Your task to perform on an android device: turn on showing notifications on the lock screen Image 0: 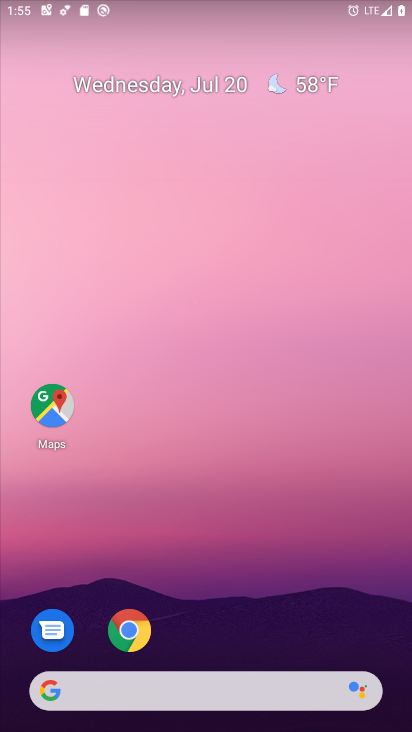
Step 0: drag from (262, 644) to (277, 64)
Your task to perform on an android device: turn on showing notifications on the lock screen Image 1: 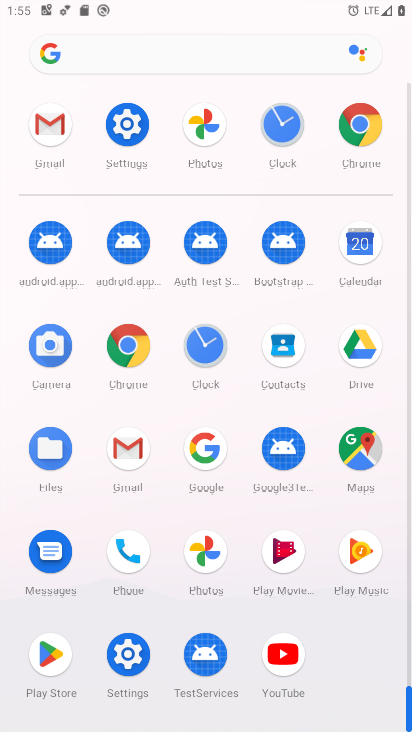
Step 1: click (146, 661)
Your task to perform on an android device: turn on showing notifications on the lock screen Image 2: 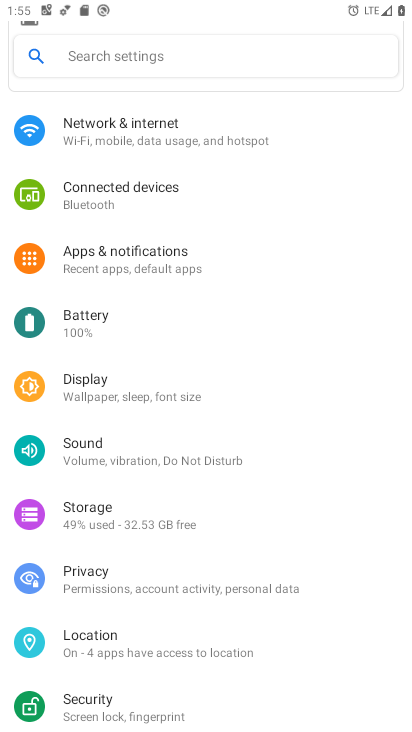
Step 2: click (117, 267)
Your task to perform on an android device: turn on showing notifications on the lock screen Image 3: 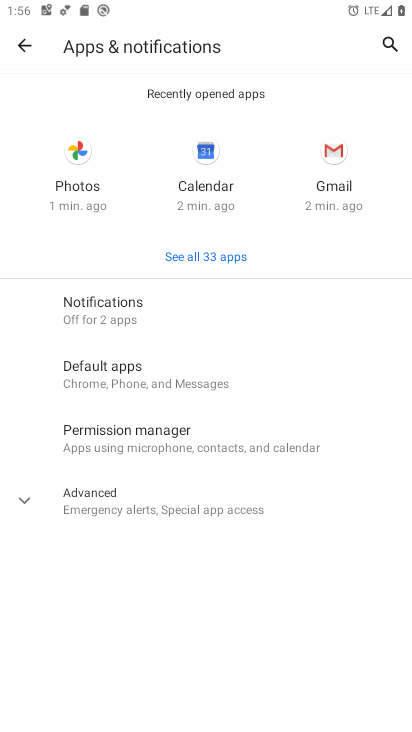
Step 3: click (155, 311)
Your task to perform on an android device: turn on showing notifications on the lock screen Image 4: 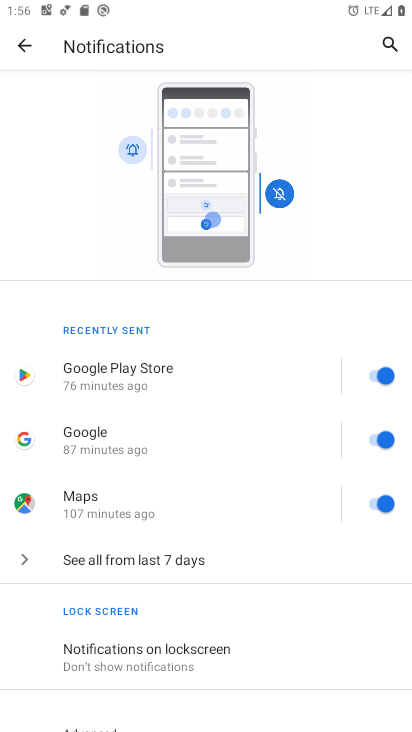
Step 4: drag from (215, 552) to (244, 223)
Your task to perform on an android device: turn on showing notifications on the lock screen Image 5: 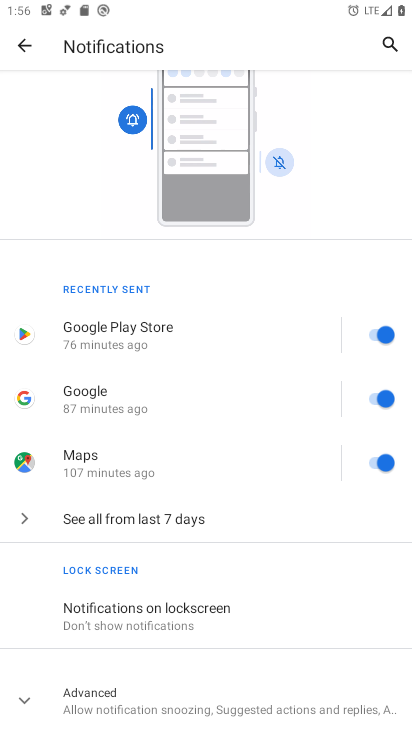
Step 5: click (152, 608)
Your task to perform on an android device: turn on showing notifications on the lock screen Image 6: 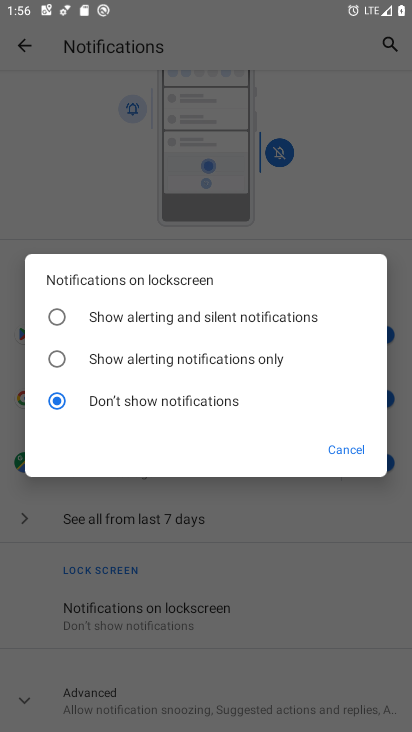
Step 6: click (196, 321)
Your task to perform on an android device: turn on showing notifications on the lock screen Image 7: 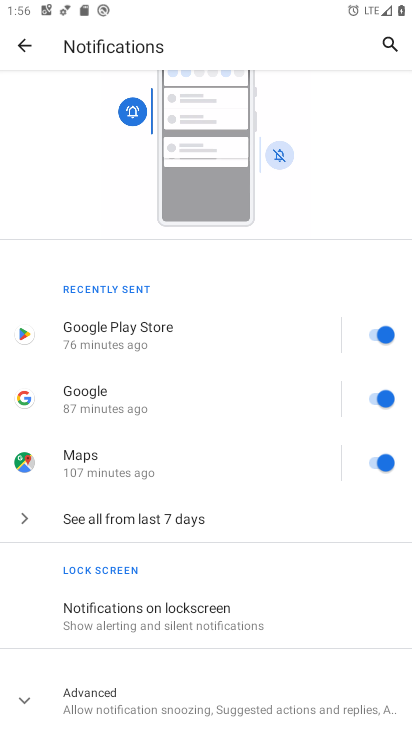
Step 7: task complete